Your task to perform on an android device: Go to calendar. Show me events next week Image 0: 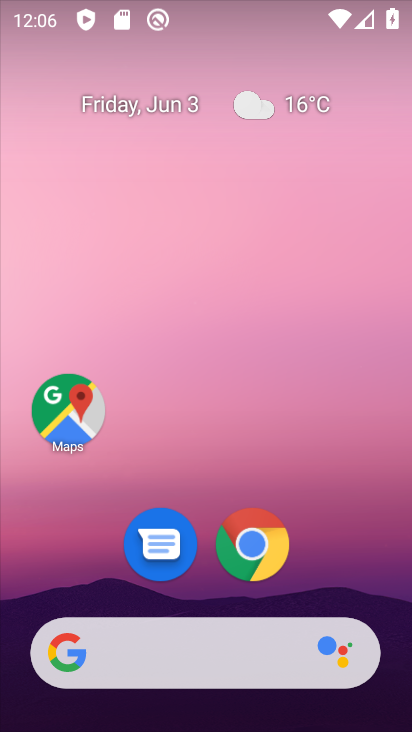
Step 0: drag from (395, 564) to (365, 184)
Your task to perform on an android device: Go to calendar. Show me events next week Image 1: 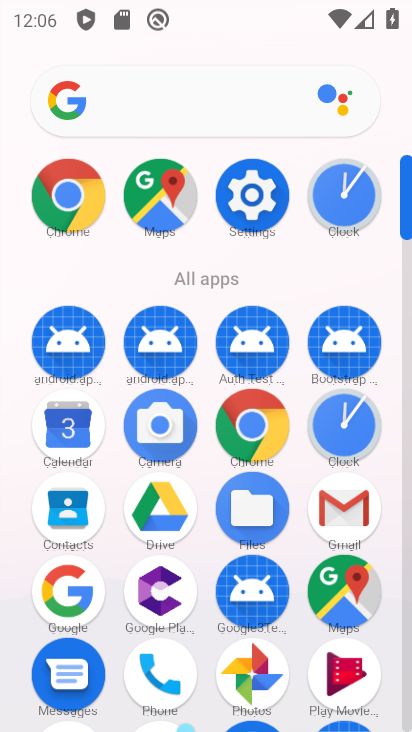
Step 1: click (80, 417)
Your task to perform on an android device: Go to calendar. Show me events next week Image 2: 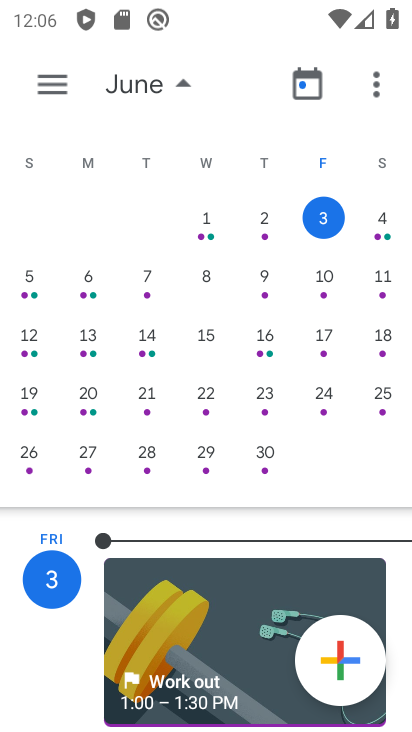
Step 2: task complete